Your task to perform on an android device: toggle priority inbox in the gmail app Image 0: 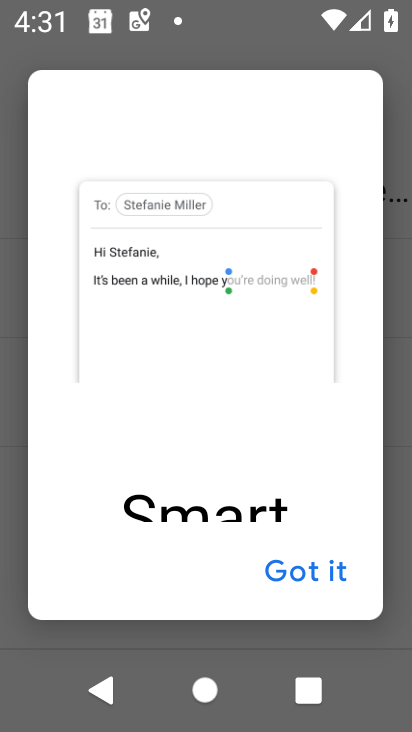
Step 0: press home button
Your task to perform on an android device: toggle priority inbox in the gmail app Image 1: 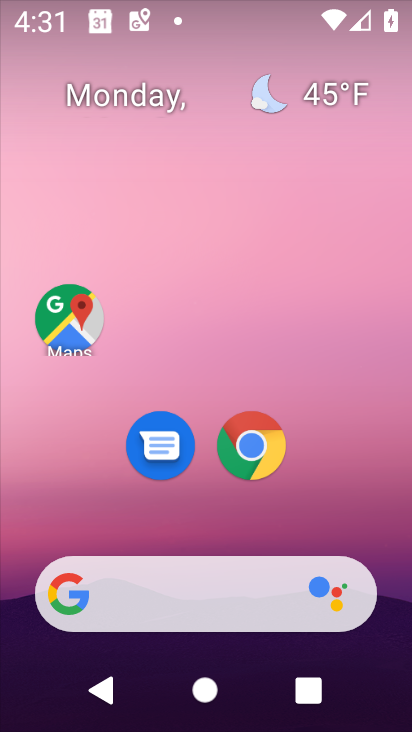
Step 1: drag from (299, 520) to (293, 59)
Your task to perform on an android device: toggle priority inbox in the gmail app Image 2: 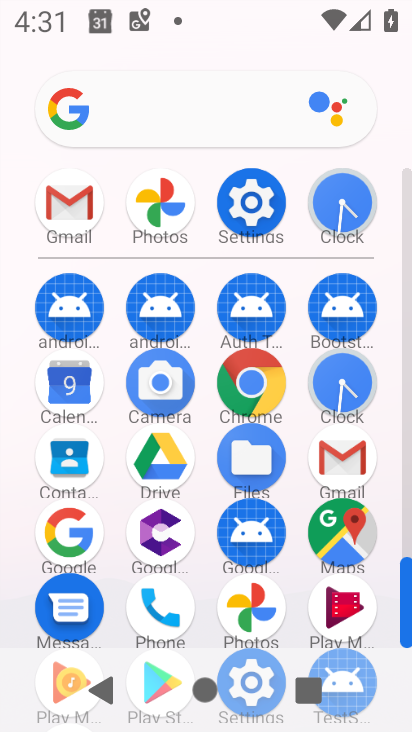
Step 2: click (350, 461)
Your task to perform on an android device: toggle priority inbox in the gmail app Image 3: 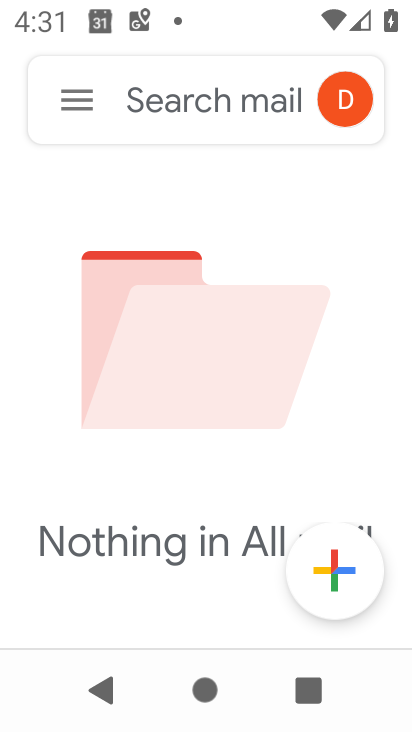
Step 3: click (72, 107)
Your task to perform on an android device: toggle priority inbox in the gmail app Image 4: 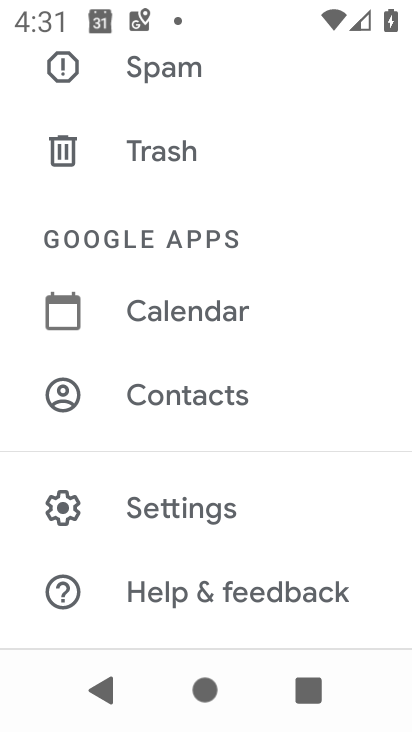
Step 4: click (206, 490)
Your task to perform on an android device: toggle priority inbox in the gmail app Image 5: 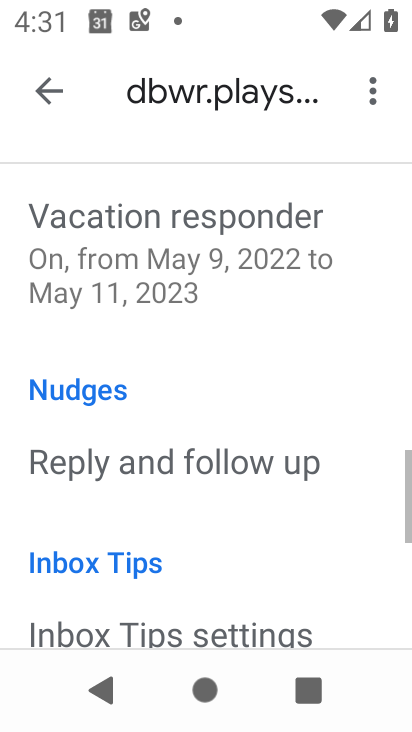
Step 5: drag from (146, 293) to (212, 652)
Your task to perform on an android device: toggle priority inbox in the gmail app Image 6: 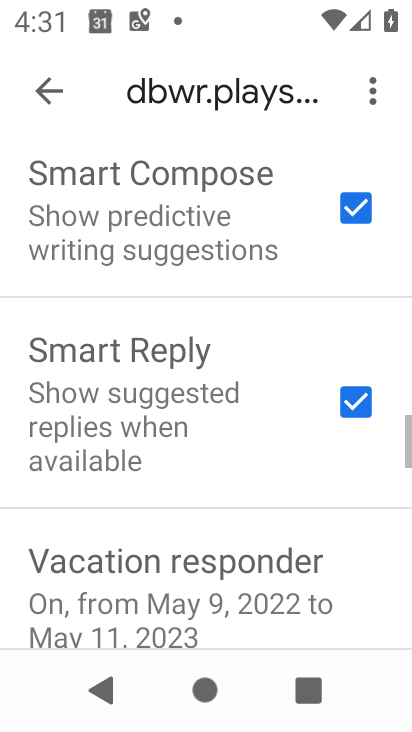
Step 6: drag from (203, 275) to (227, 555)
Your task to perform on an android device: toggle priority inbox in the gmail app Image 7: 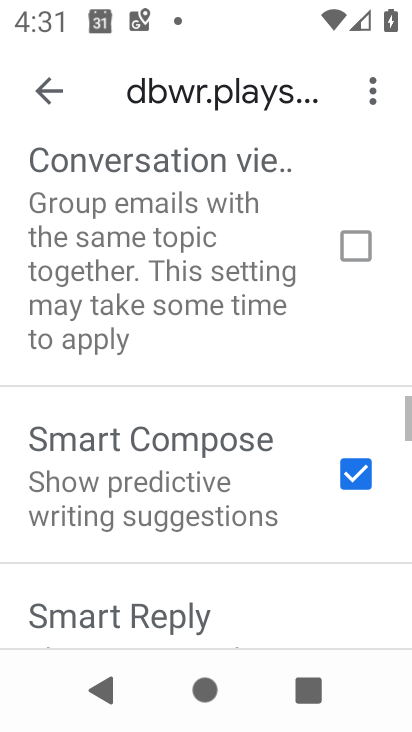
Step 7: drag from (209, 263) to (230, 550)
Your task to perform on an android device: toggle priority inbox in the gmail app Image 8: 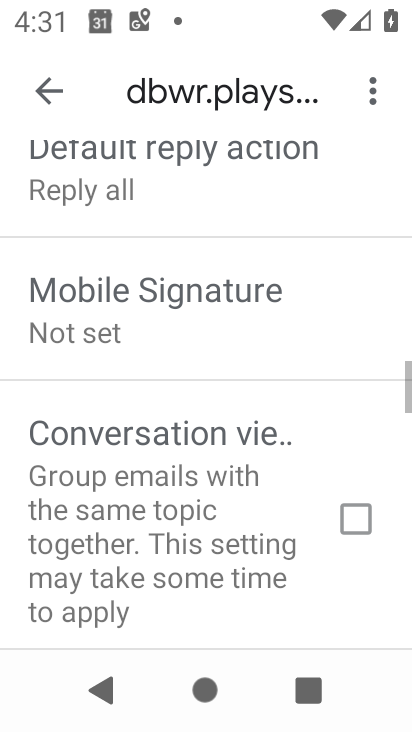
Step 8: drag from (206, 219) to (220, 489)
Your task to perform on an android device: toggle priority inbox in the gmail app Image 9: 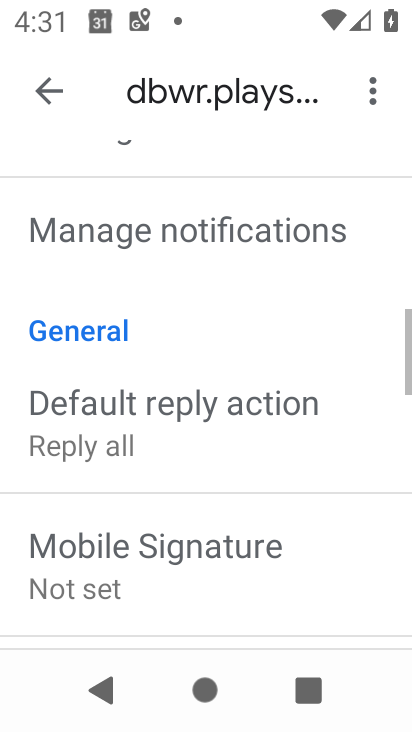
Step 9: drag from (212, 180) to (233, 464)
Your task to perform on an android device: toggle priority inbox in the gmail app Image 10: 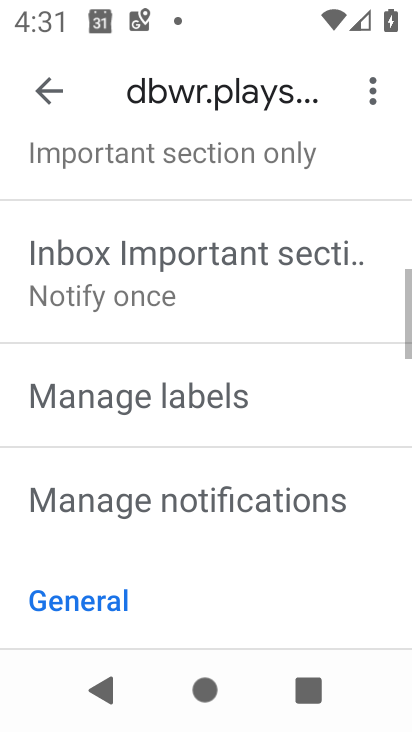
Step 10: drag from (199, 211) to (190, 529)
Your task to perform on an android device: toggle priority inbox in the gmail app Image 11: 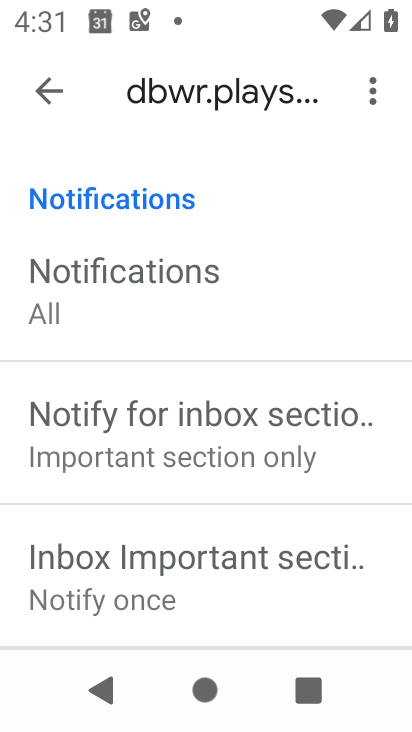
Step 11: drag from (148, 267) to (156, 546)
Your task to perform on an android device: toggle priority inbox in the gmail app Image 12: 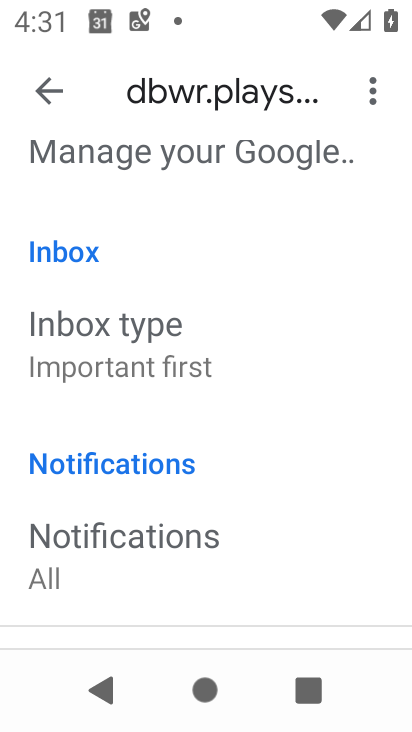
Step 12: click (113, 359)
Your task to perform on an android device: toggle priority inbox in the gmail app Image 13: 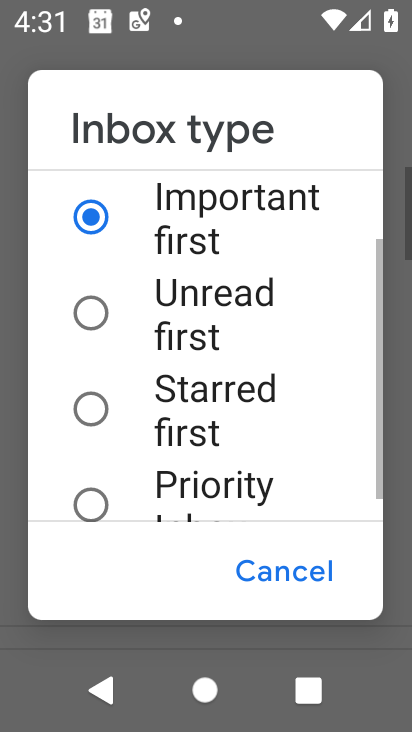
Step 13: drag from (118, 454) to (137, 225)
Your task to perform on an android device: toggle priority inbox in the gmail app Image 14: 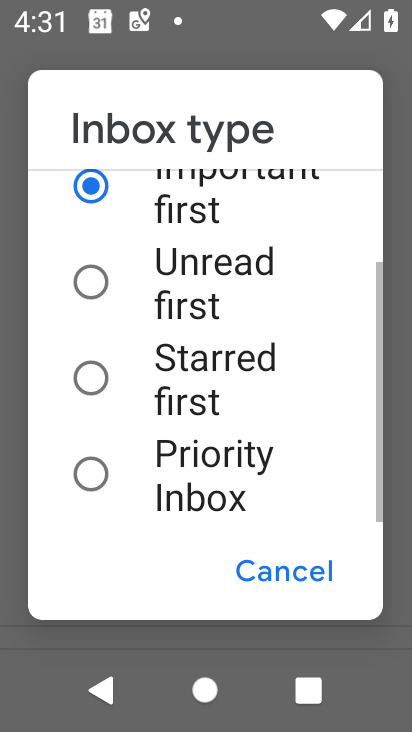
Step 14: click (130, 477)
Your task to perform on an android device: toggle priority inbox in the gmail app Image 15: 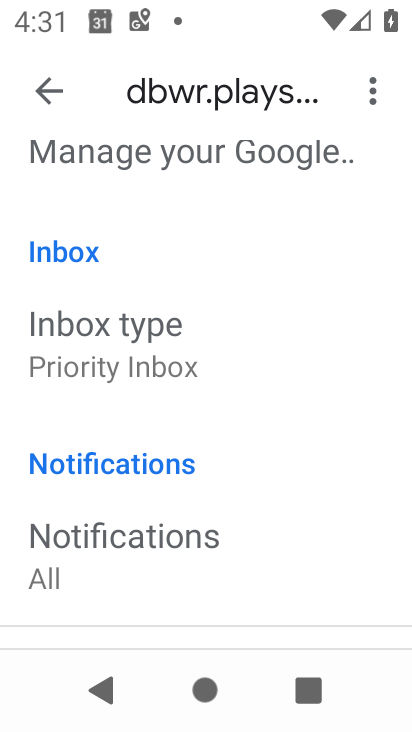
Step 15: task complete